Your task to perform on an android device: turn off airplane mode Image 0: 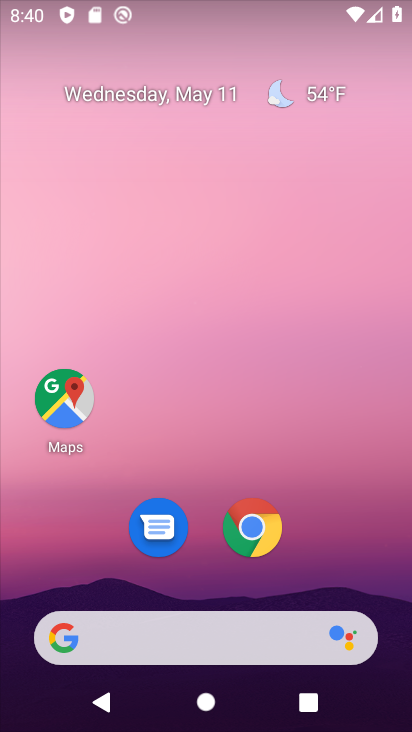
Step 0: drag from (318, 560) to (252, 6)
Your task to perform on an android device: turn off airplane mode Image 1: 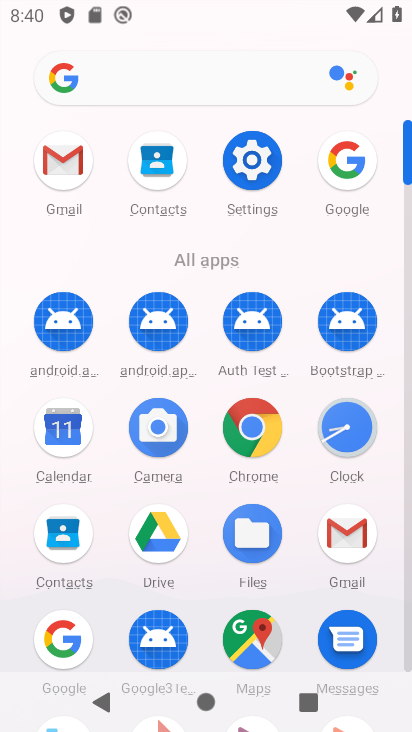
Step 1: click (244, 188)
Your task to perform on an android device: turn off airplane mode Image 2: 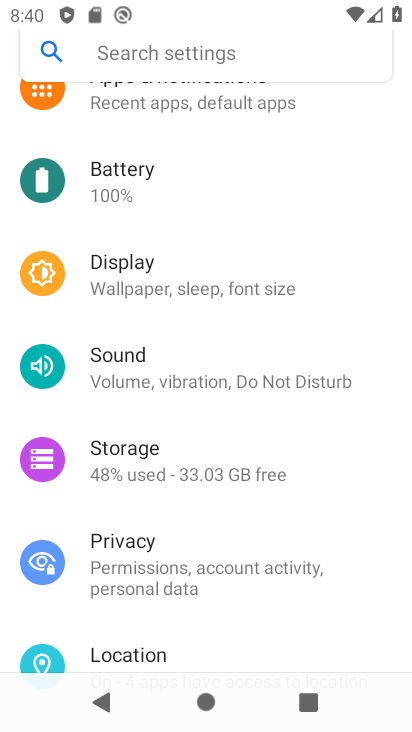
Step 2: drag from (236, 169) to (242, 602)
Your task to perform on an android device: turn off airplane mode Image 3: 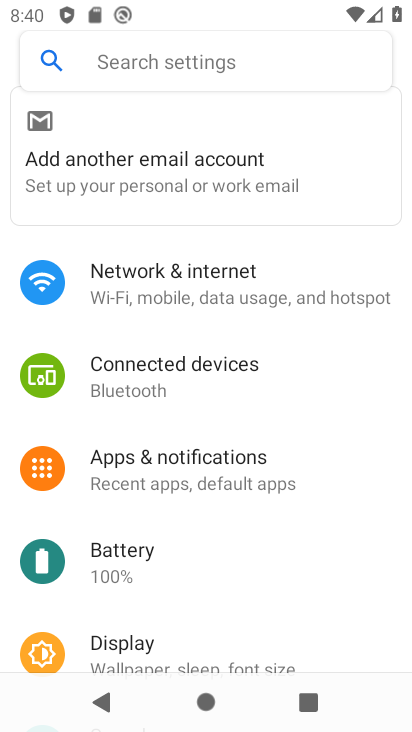
Step 3: click (177, 287)
Your task to perform on an android device: turn off airplane mode Image 4: 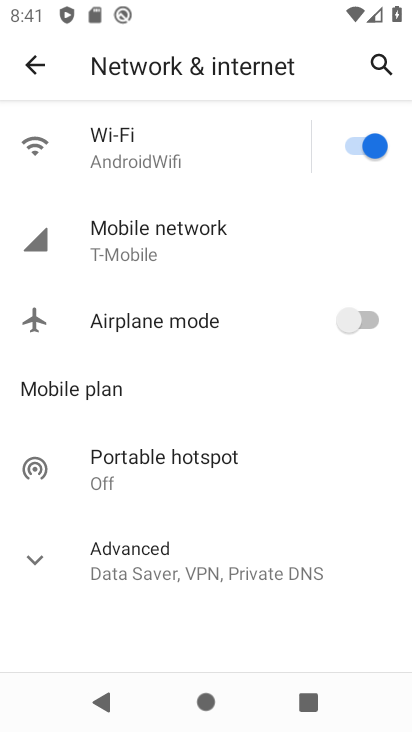
Step 4: task complete